Your task to perform on an android device: turn off notifications settings in the gmail app Image 0: 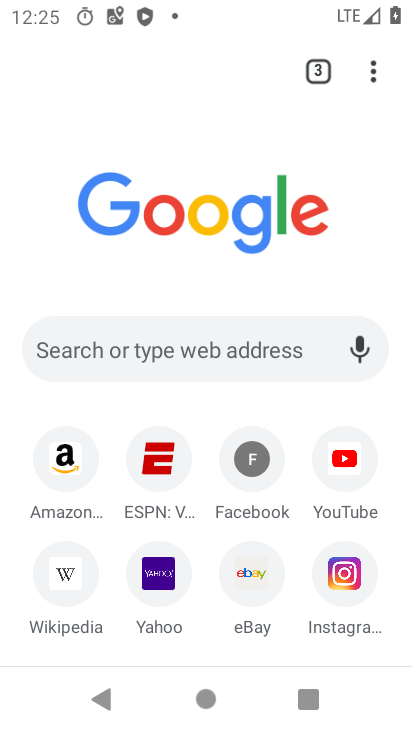
Step 0: press home button
Your task to perform on an android device: turn off notifications settings in the gmail app Image 1: 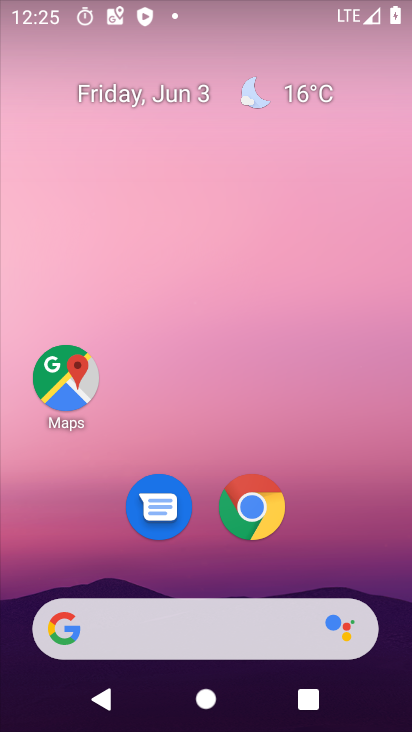
Step 1: drag from (340, 263) to (274, 73)
Your task to perform on an android device: turn off notifications settings in the gmail app Image 2: 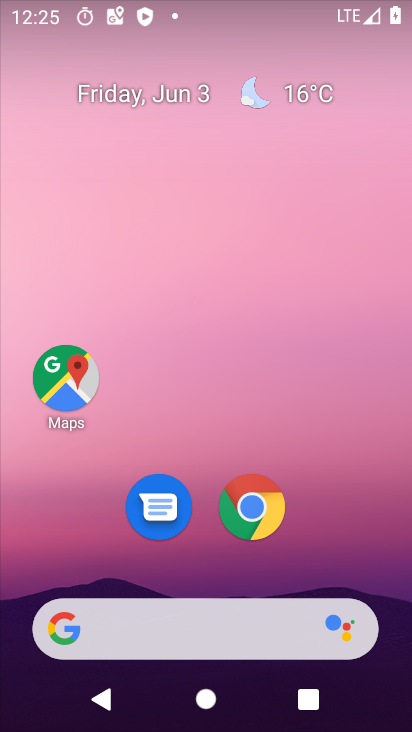
Step 2: drag from (392, 651) to (246, 36)
Your task to perform on an android device: turn off notifications settings in the gmail app Image 3: 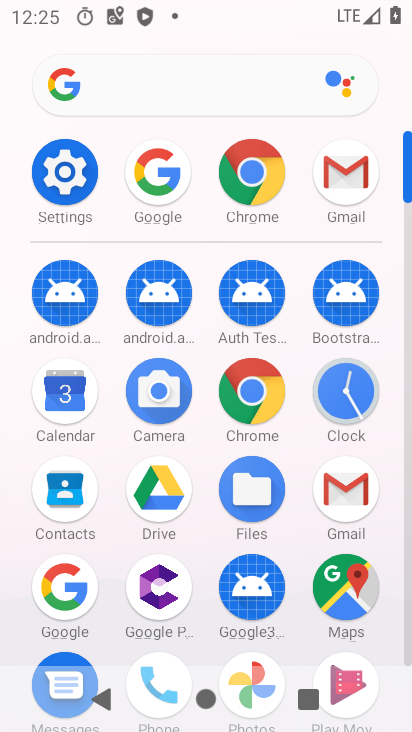
Step 3: click (358, 505)
Your task to perform on an android device: turn off notifications settings in the gmail app Image 4: 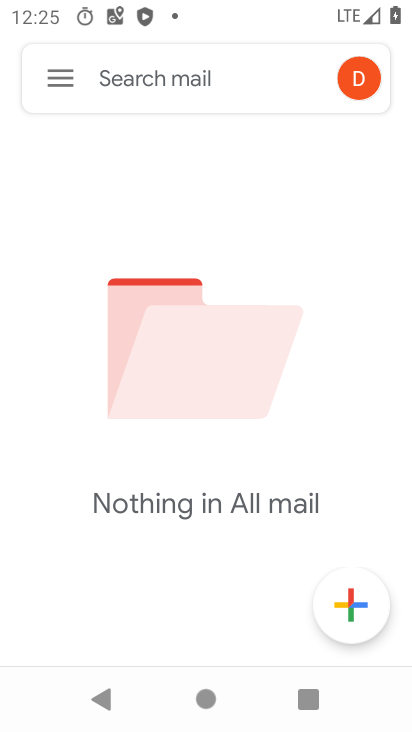
Step 4: click (45, 79)
Your task to perform on an android device: turn off notifications settings in the gmail app Image 5: 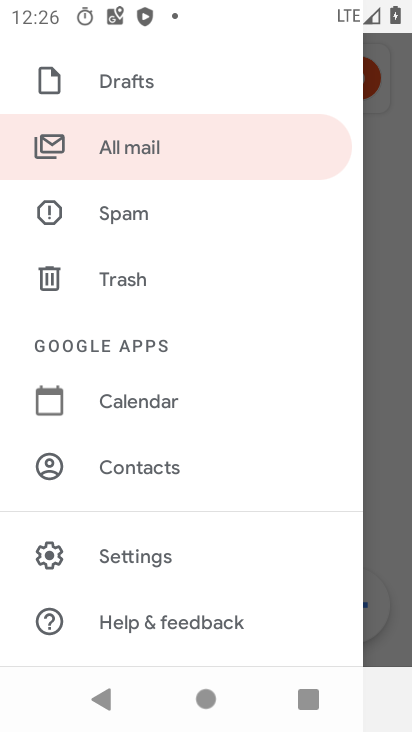
Step 5: click (227, 555)
Your task to perform on an android device: turn off notifications settings in the gmail app Image 6: 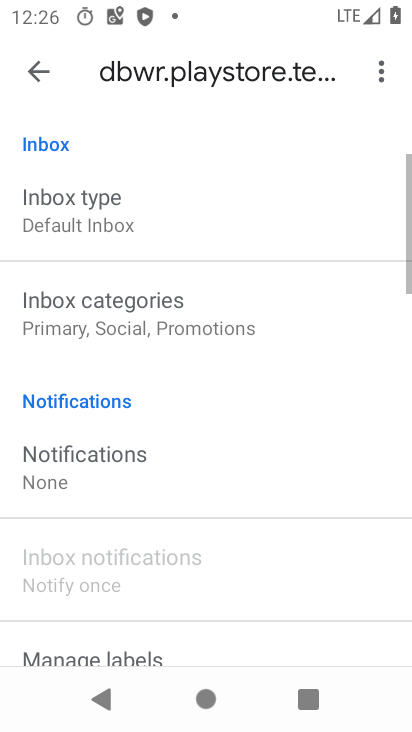
Step 6: click (199, 471)
Your task to perform on an android device: turn off notifications settings in the gmail app Image 7: 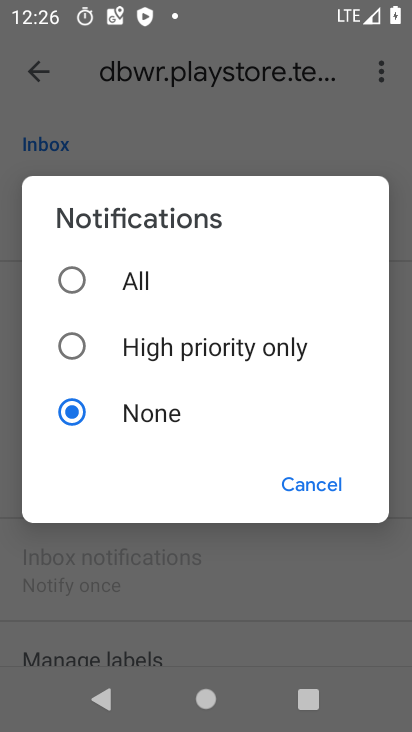
Step 7: task complete